Your task to perform on an android device: toggle priority inbox in the gmail app Image 0: 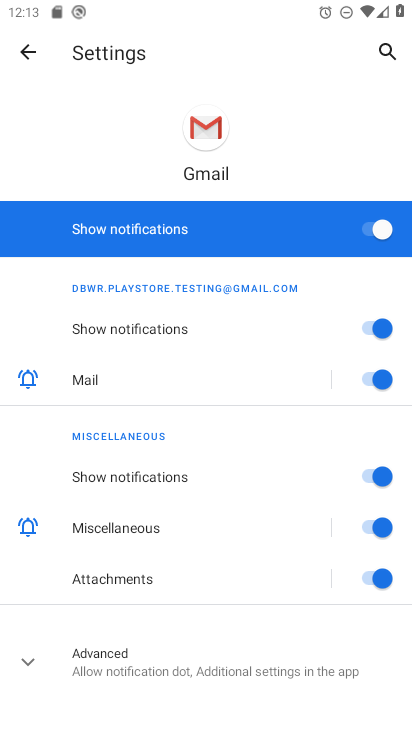
Step 0: press home button
Your task to perform on an android device: toggle priority inbox in the gmail app Image 1: 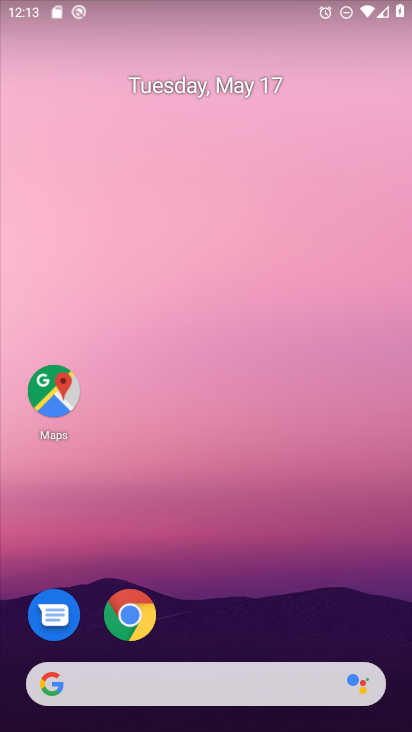
Step 1: drag from (166, 651) to (211, 324)
Your task to perform on an android device: toggle priority inbox in the gmail app Image 2: 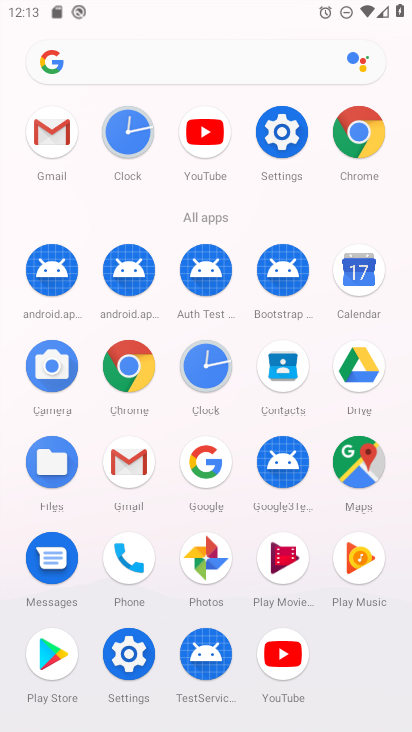
Step 2: click (56, 141)
Your task to perform on an android device: toggle priority inbox in the gmail app Image 3: 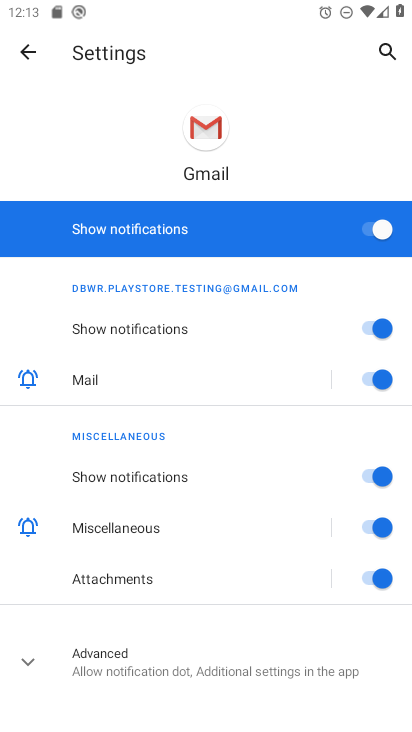
Step 3: click (17, 47)
Your task to perform on an android device: toggle priority inbox in the gmail app Image 4: 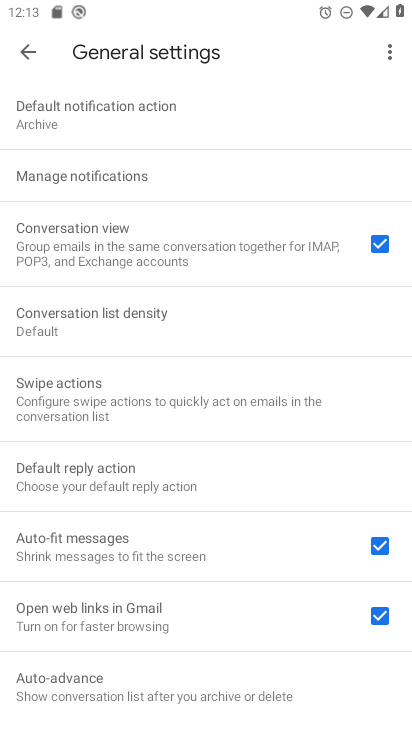
Step 4: click (25, 48)
Your task to perform on an android device: toggle priority inbox in the gmail app Image 5: 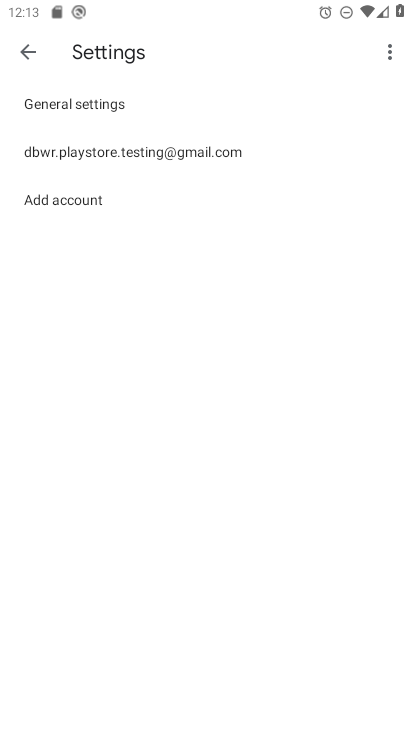
Step 5: click (121, 143)
Your task to perform on an android device: toggle priority inbox in the gmail app Image 6: 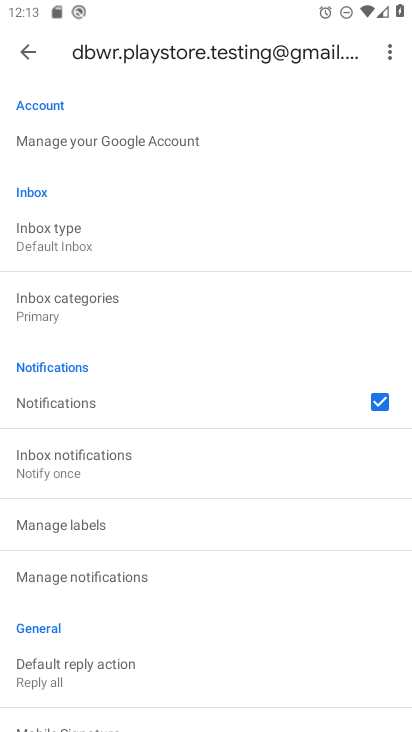
Step 6: drag from (106, 678) to (118, 408)
Your task to perform on an android device: toggle priority inbox in the gmail app Image 7: 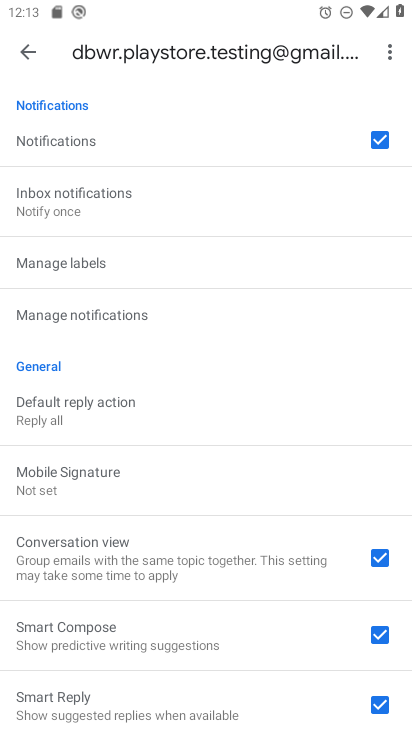
Step 7: drag from (187, 106) to (156, 574)
Your task to perform on an android device: toggle priority inbox in the gmail app Image 8: 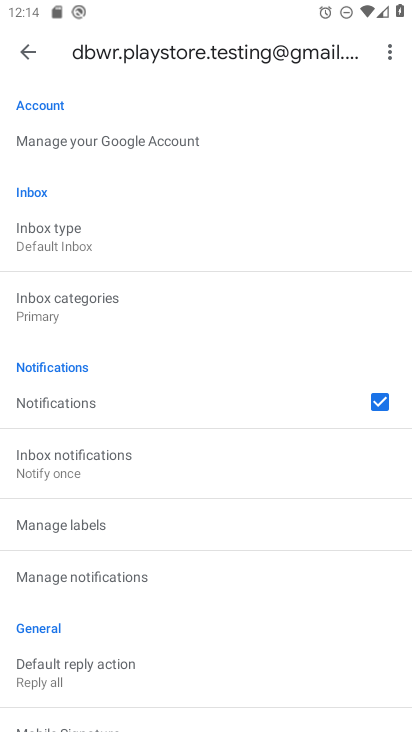
Step 8: click (66, 236)
Your task to perform on an android device: toggle priority inbox in the gmail app Image 9: 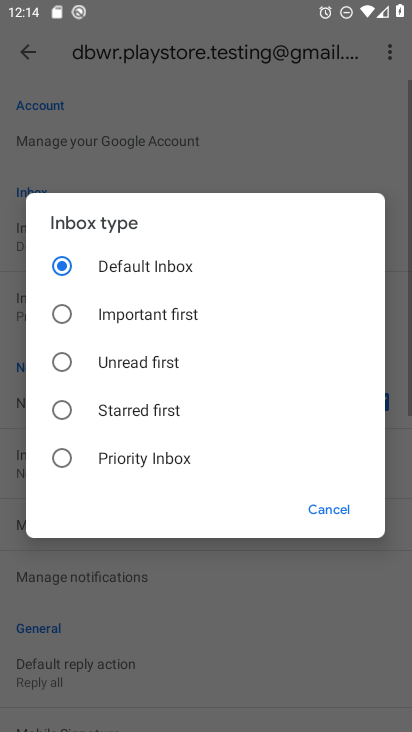
Step 9: click (132, 451)
Your task to perform on an android device: toggle priority inbox in the gmail app Image 10: 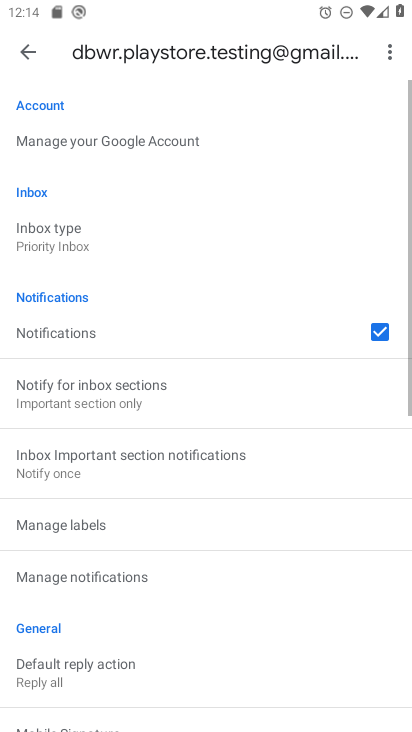
Step 10: task complete